Your task to perform on an android device: Search for hotels in Paris Image 0: 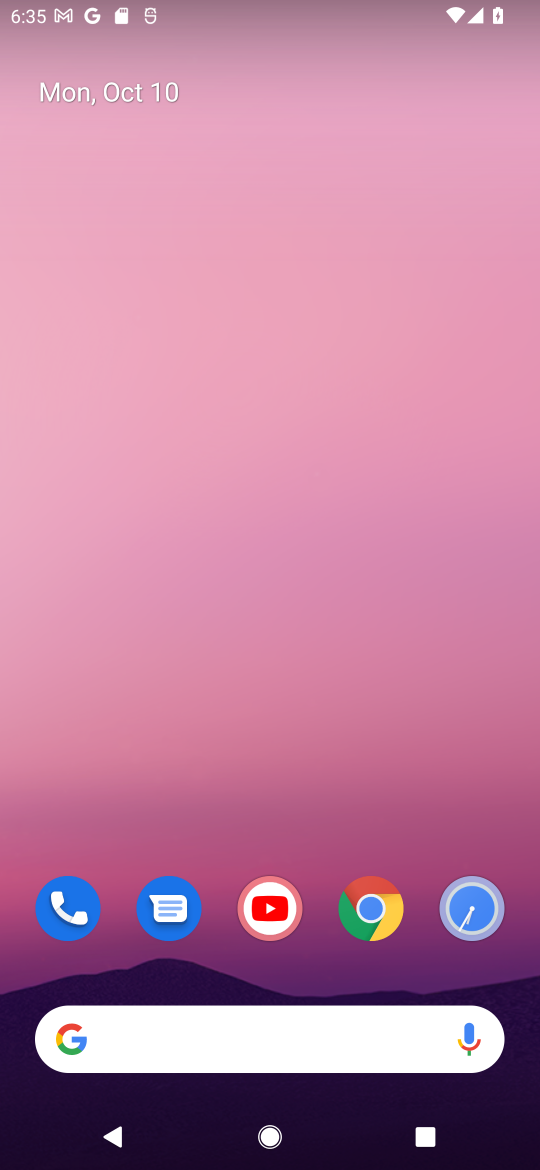
Step 0: drag from (293, 844) to (280, 338)
Your task to perform on an android device: Search for hotels in Paris Image 1: 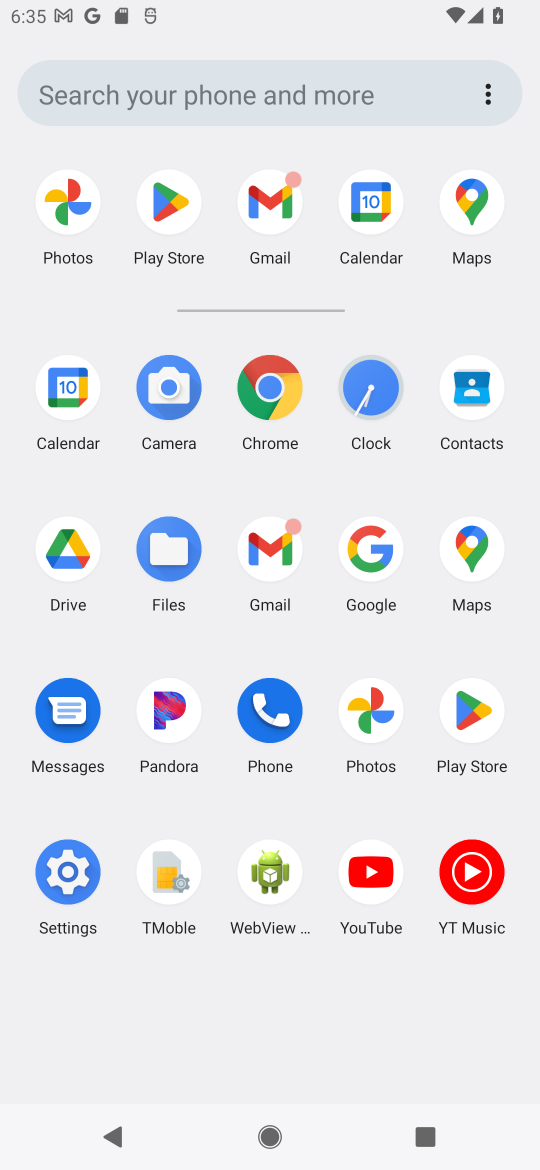
Step 1: click (254, 406)
Your task to perform on an android device: Search for hotels in Paris Image 2: 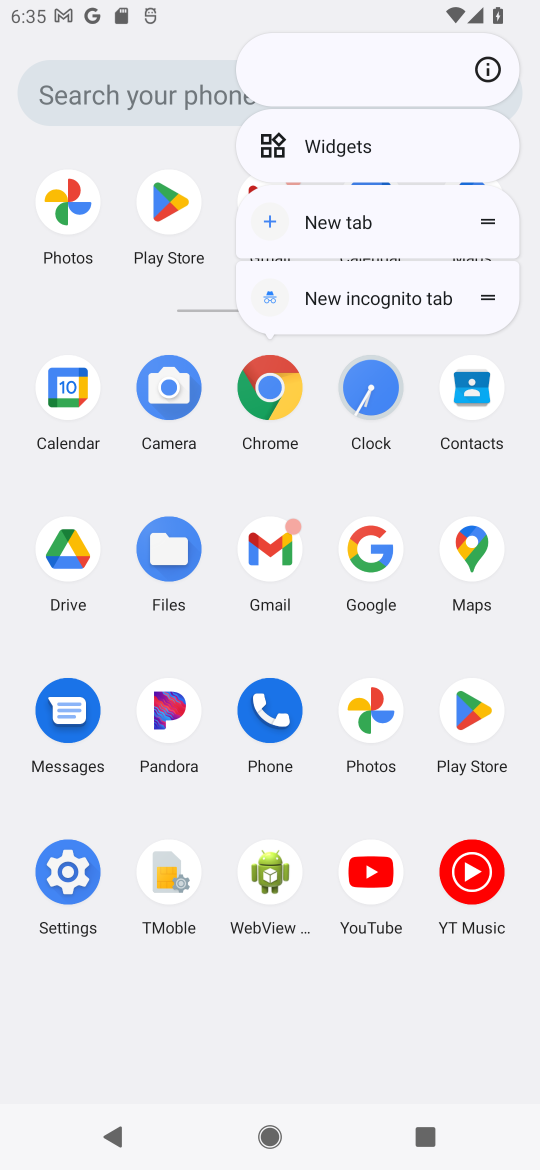
Step 2: click (263, 383)
Your task to perform on an android device: Search for hotels in Paris Image 3: 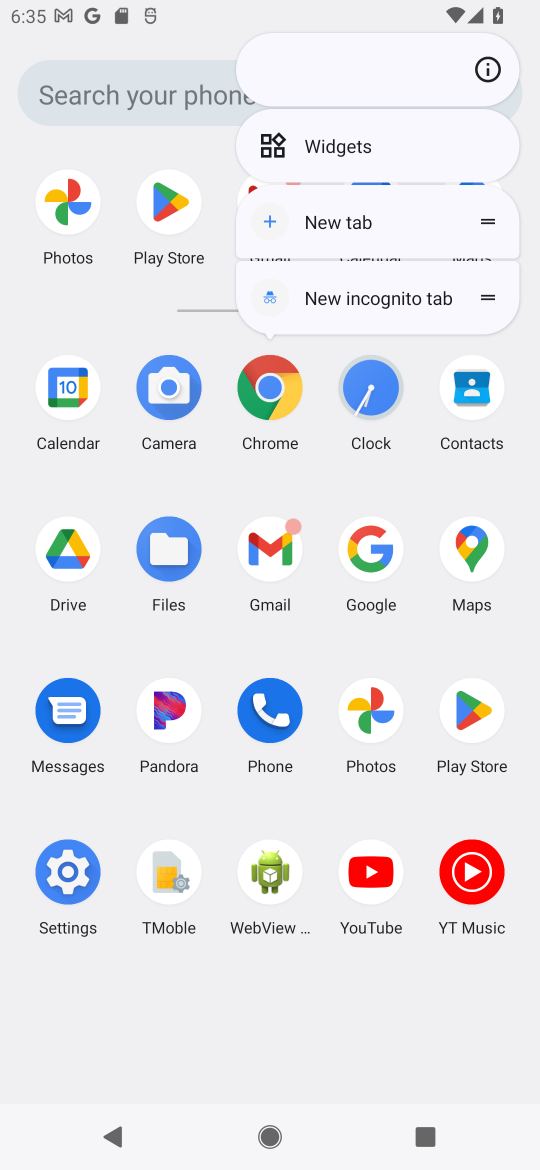
Step 3: click (267, 384)
Your task to perform on an android device: Search for hotels in Paris Image 4: 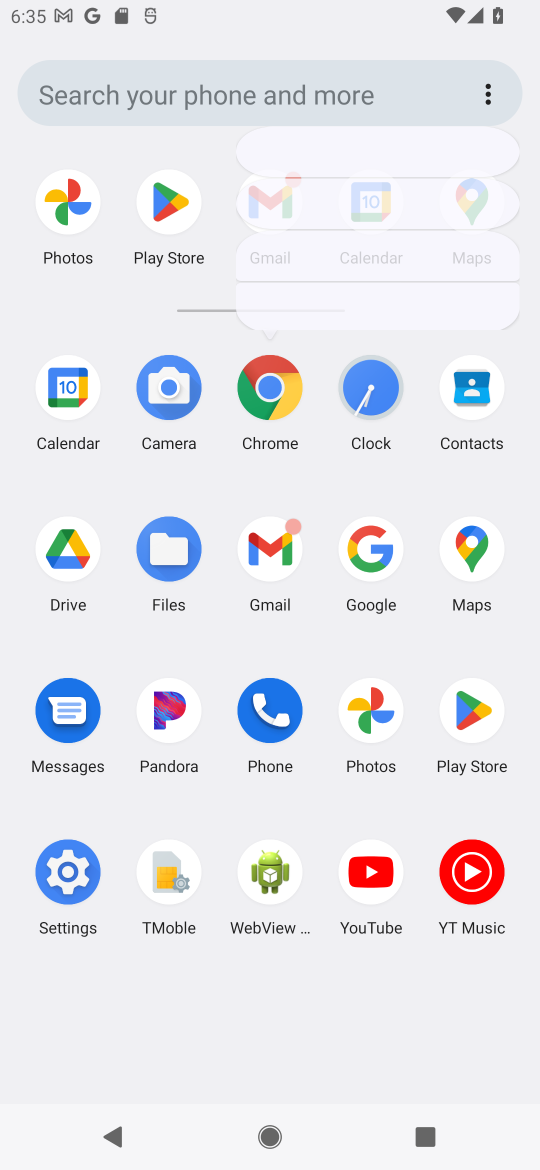
Step 4: click (273, 387)
Your task to perform on an android device: Search for hotels in Paris Image 5: 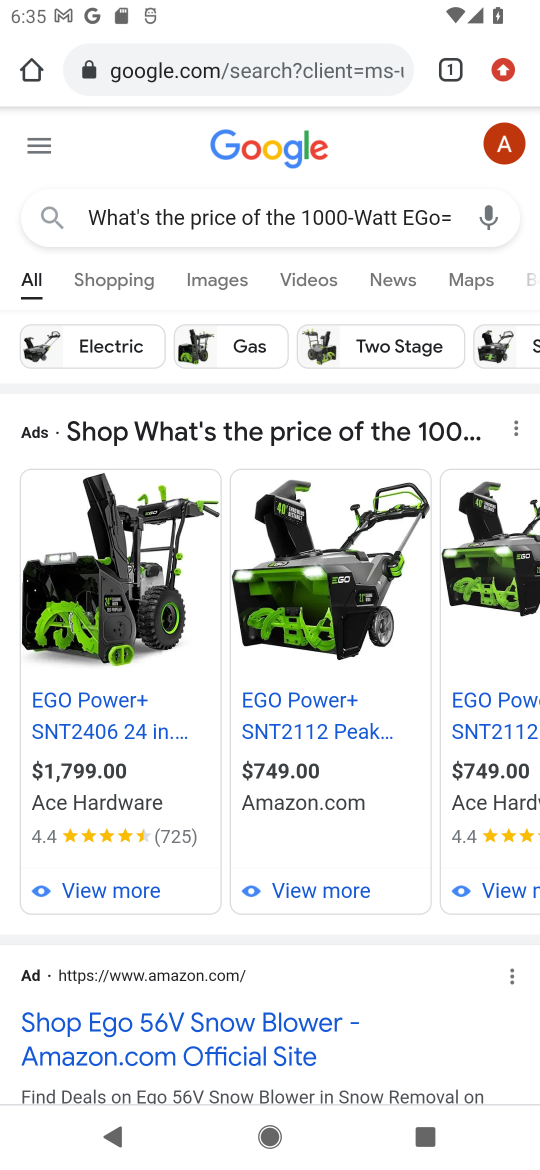
Step 5: click (271, 63)
Your task to perform on an android device: Search for hotels in Paris Image 6: 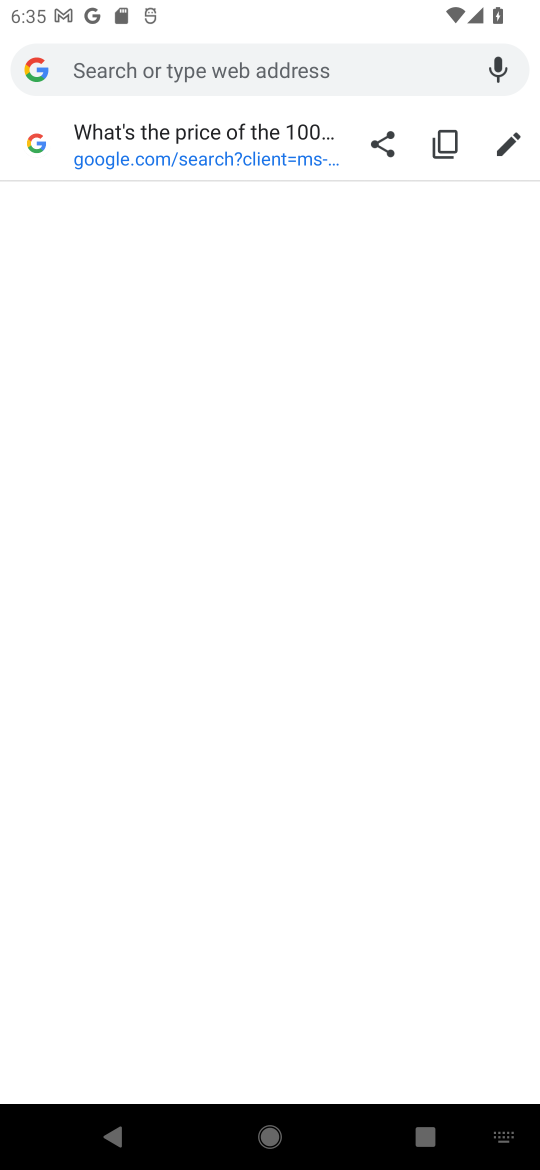
Step 6: type "hotels in Paris"
Your task to perform on an android device: Search for hotels in Paris Image 7: 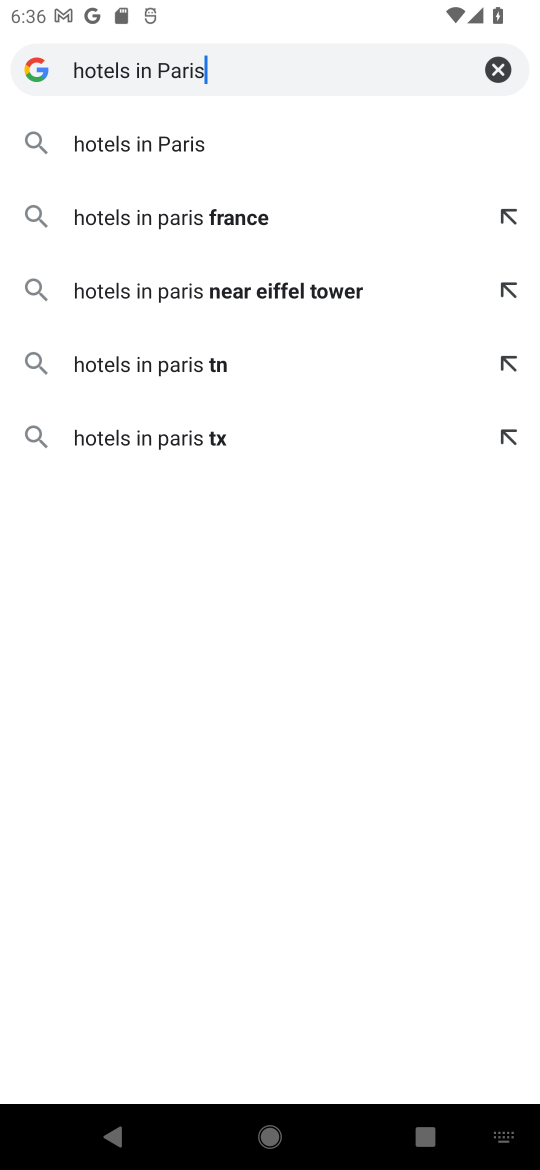
Step 7: press enter
Your task to perform on an android device: Search for hotels in Paris Image 8: 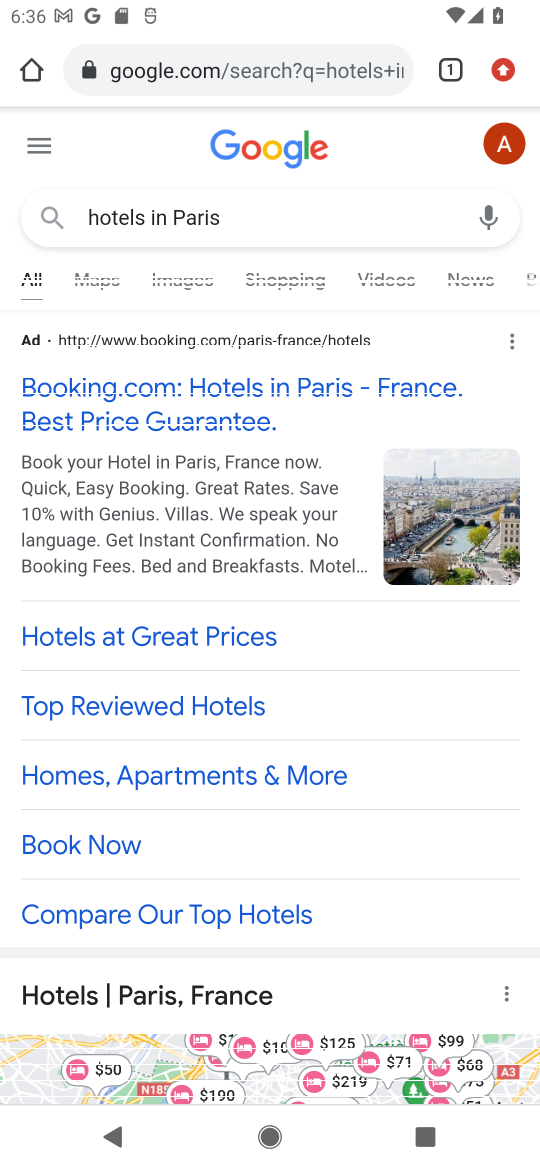
Step 8: task complete